Your task to perform on an android device: check the backup settings in the google photos Image 0: 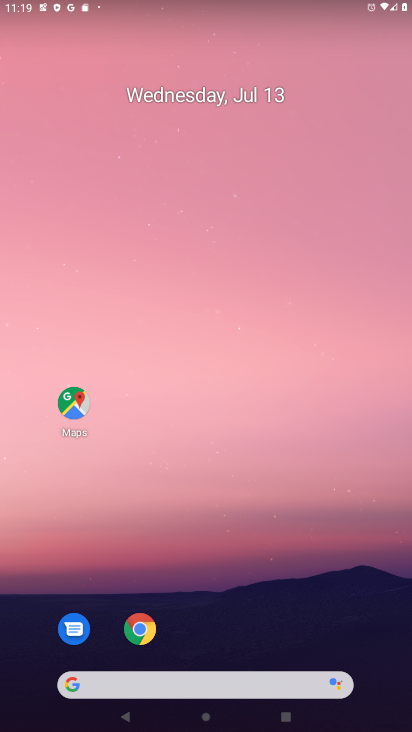
Step 0: drag from (246, 630) to (259, 26)
Your task to perform on an android device: check the backup settings in the google photos Image 1: 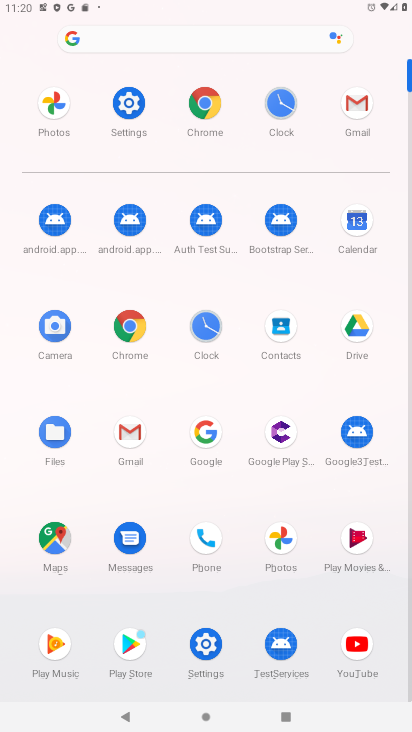
Step 1: click (59, 125)
Your task to perform on an android device: check the backup settings in the google photos Image 2: 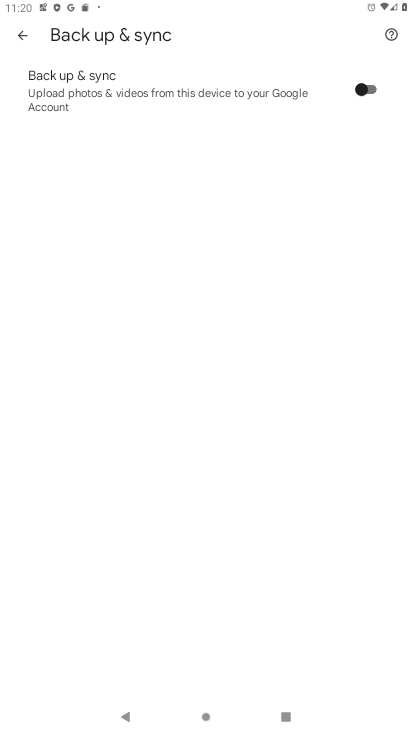
Step 2: task complete